Your task to perform on an android device: turn on translation in the chrome app Image 0: 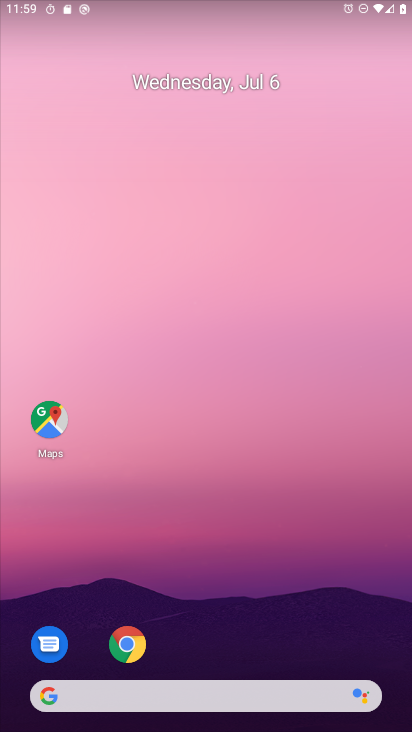
Step 0: click (131, 649)
Your task to perform on an android device: turn on translation in the chrome app Image 1: 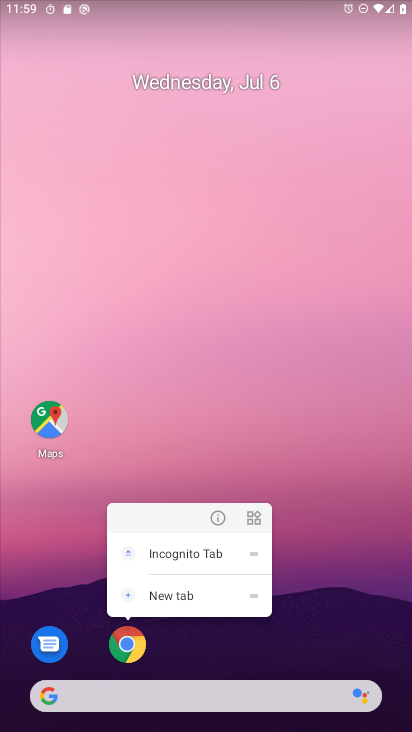
Step 1: click (129, 645)
Your task to perform on an android device: turn on translation in the chrome app Image 2: 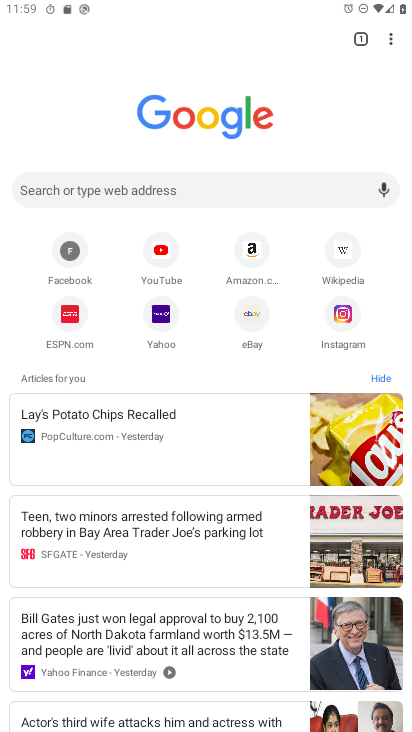
Step 2: click (385, 42)
Your task to perform on an android device: turn on translation in the chrome app Image 3: 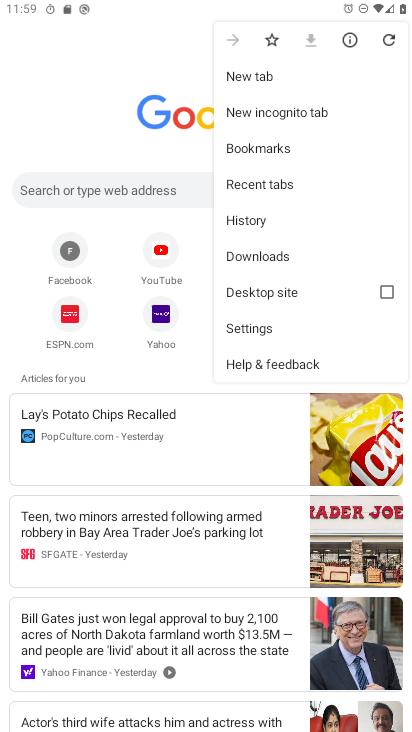
Step 3: click (259, 333)
Your task to perform on an android device: turn on translation in the chrome app Image 4: 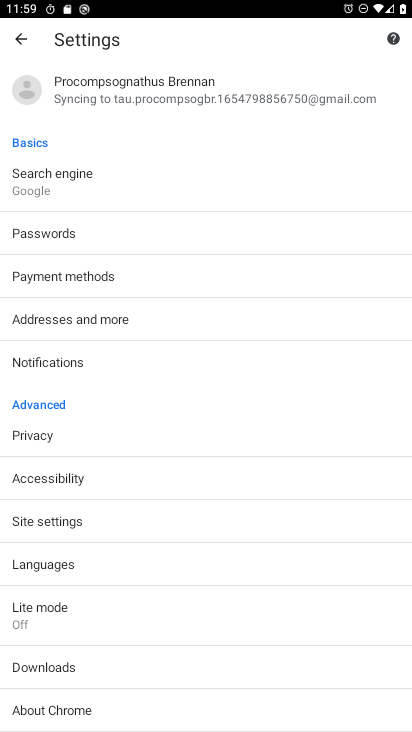
Step 4: drag from (113, 617) to (122, 401)
Your task to perform on an android device: turn on translation in the chrome app Image 5: 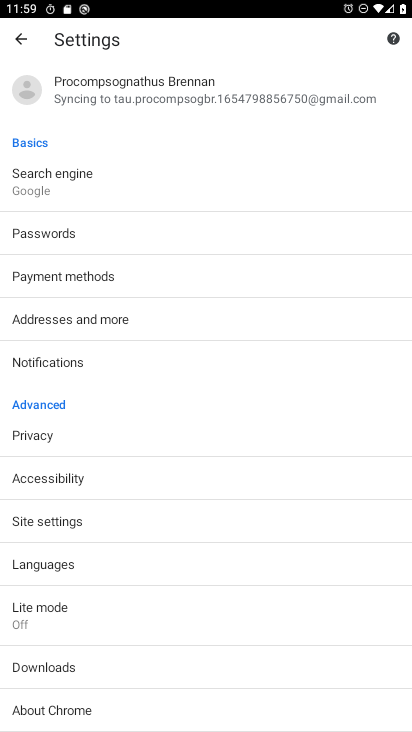
Step 5: click (43, 564)
Your task to perform on an android device: turn on translation in the chrome app Image 6: 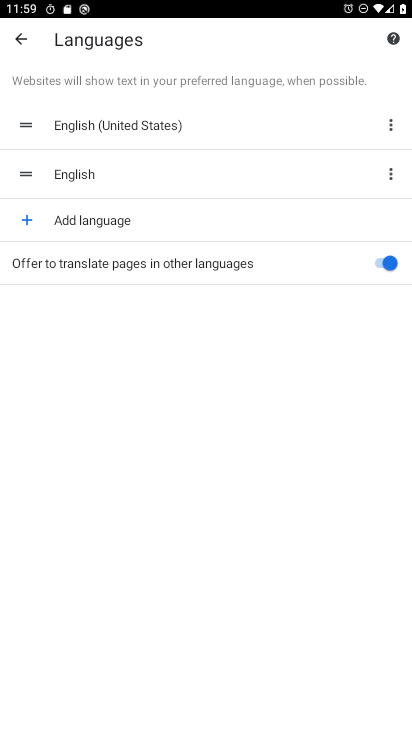
Step 6: task complete